Your task to perform on an android device: Go to CNN.com Image 0: 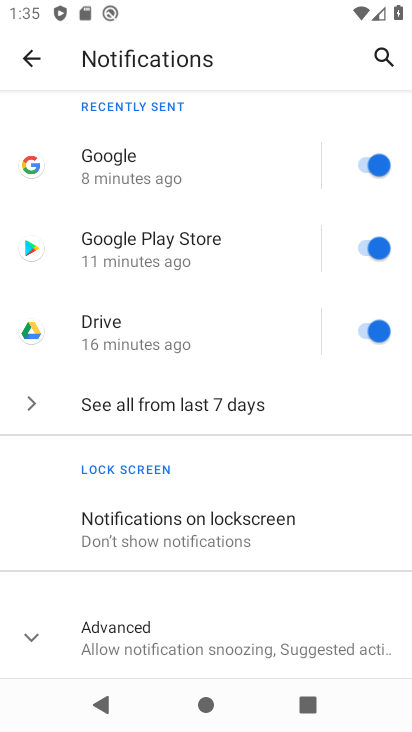
Step 0: press home button
Your task to perform on an android device: Go to CNN.com Image 1: 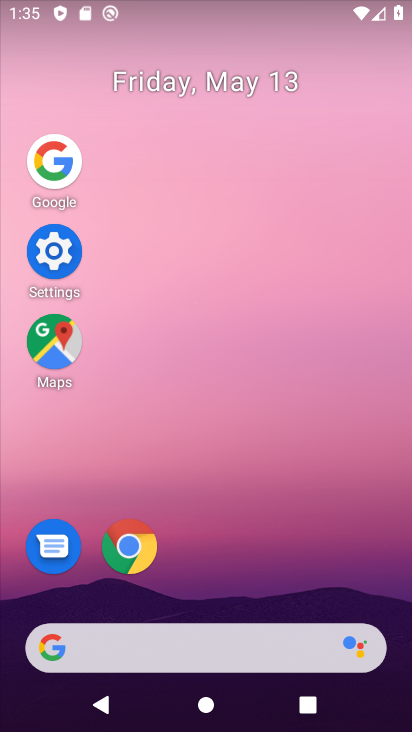
Step 1: click (120, 553)
Your task to perform on an android device: Go to CNN.com Image 2: 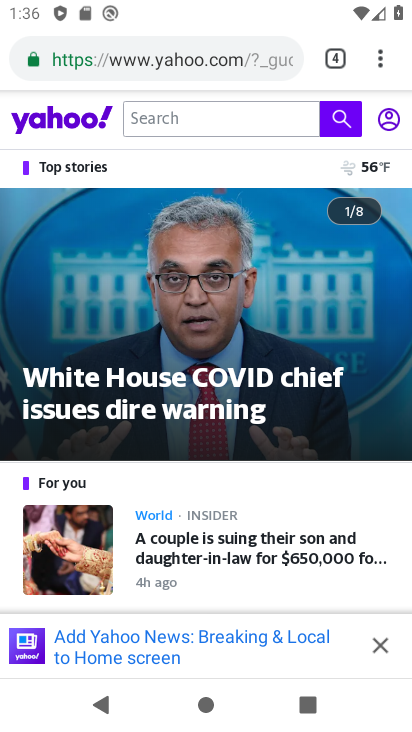
Step 2: click (321, 56)
Your task to perform on an android device: Go to CNN.com Image 3: 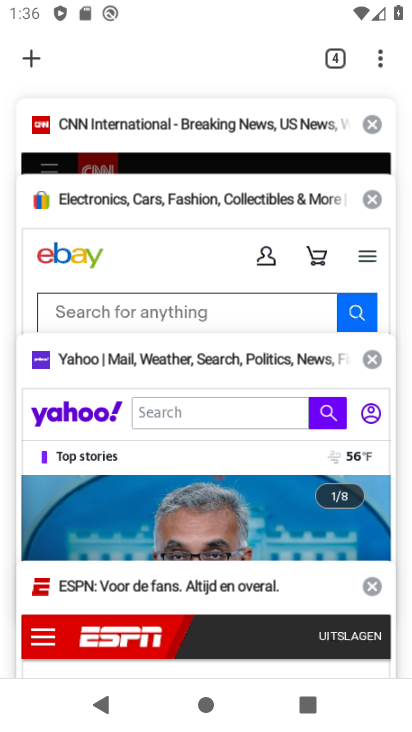
Step 3: click (157, 118)
Your task to perform on an android device: Go to CNN.com Image 4: 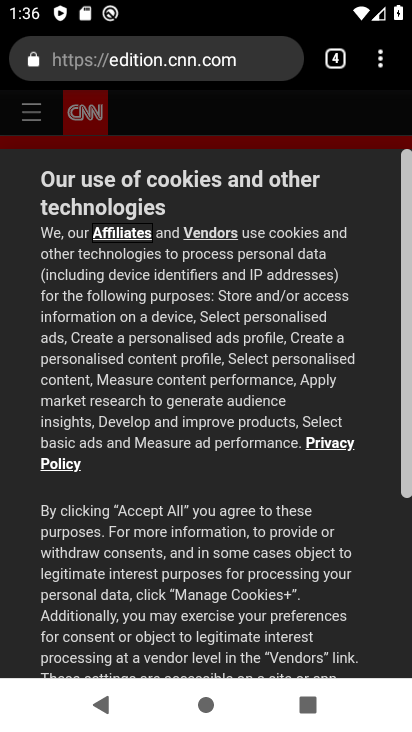
Step 4: task complete